Your task to perform on an android device: Show me the alarms in the clock app Image 0: 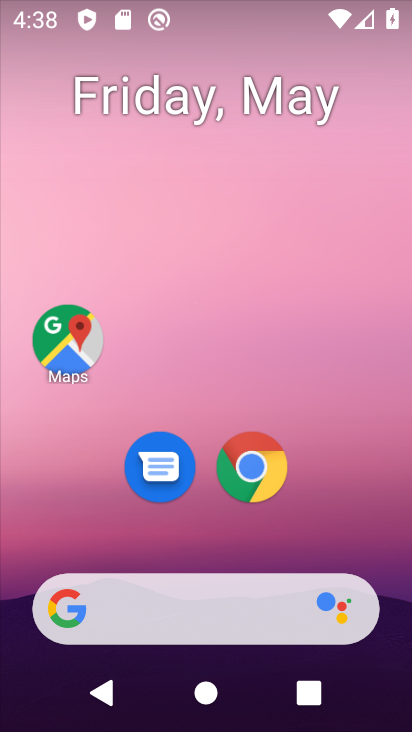
Step 0: drag from (331, 510) to (357, 120)
Your task to perform on an android device: Show me the alarms in the clock app Image 1: 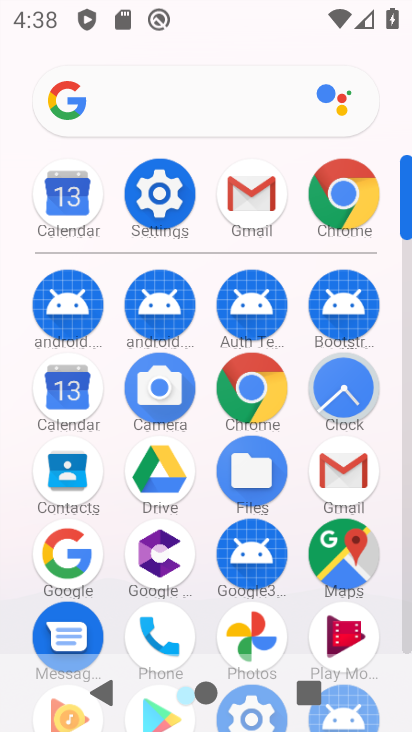
Step 1: click (343, 390)
Your task to perform on an android device: Show me the alarms in the clock app Image 2: 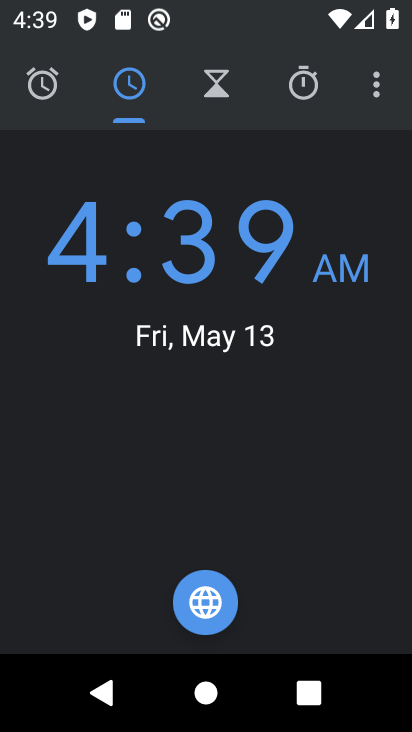
Step 2: click (59, 94)
Your task to perform on an android device: Show me the alarms in the clock app Image 3: 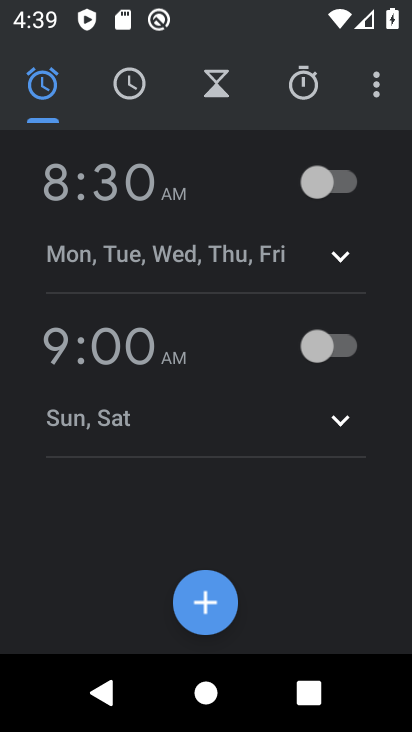
Step 3: task complete